Your task to perform on an android device: empty trash in google photos Image 0: 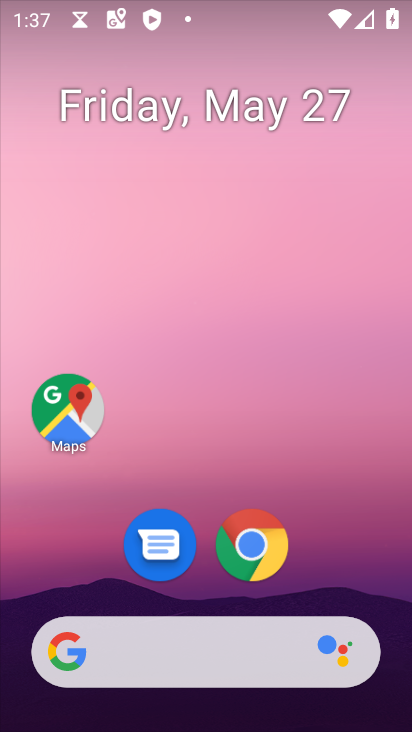
Step 0: drag from (328, 561) to (169, 19)
Your task to perform on an android device: empty trash in google photos Image 1: 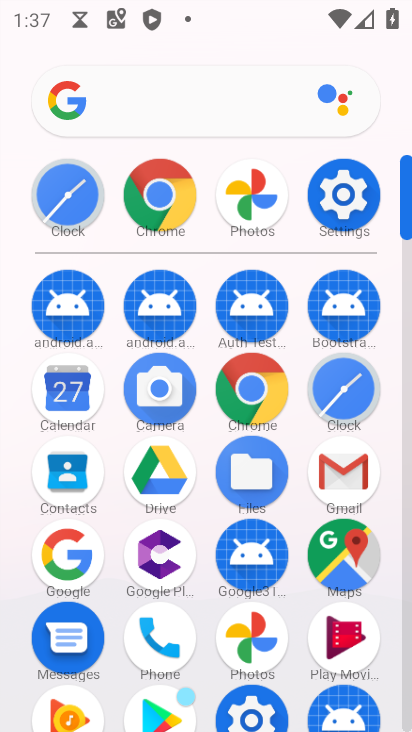
Step 1: click (249, 643)
Your task to perform on an android device: empty trash in google photos Image 2: 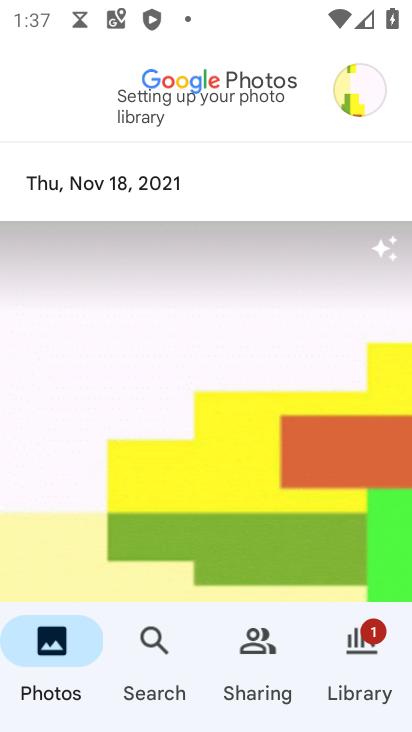
Step 2: click (363, 656)
Your task to perform on an android device: empty trash in google photos Image 3: 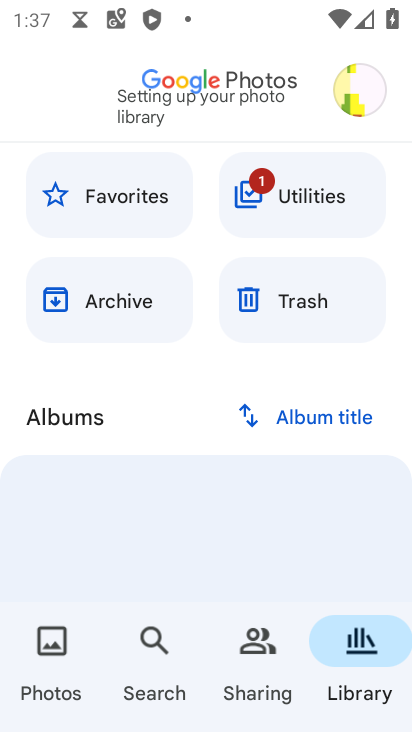
Step 3: click (310, 292)
Your task to perform on an android device: empty trash in google photos Image 4: 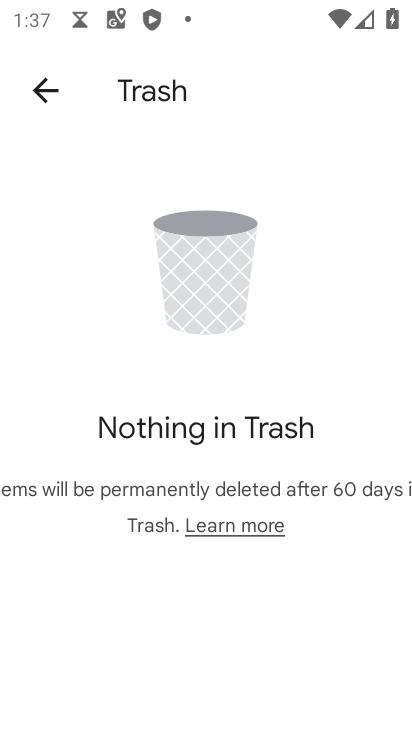
Step 4: task complete